Your task to perform on an android device: install app "PlayWell" Image 0: 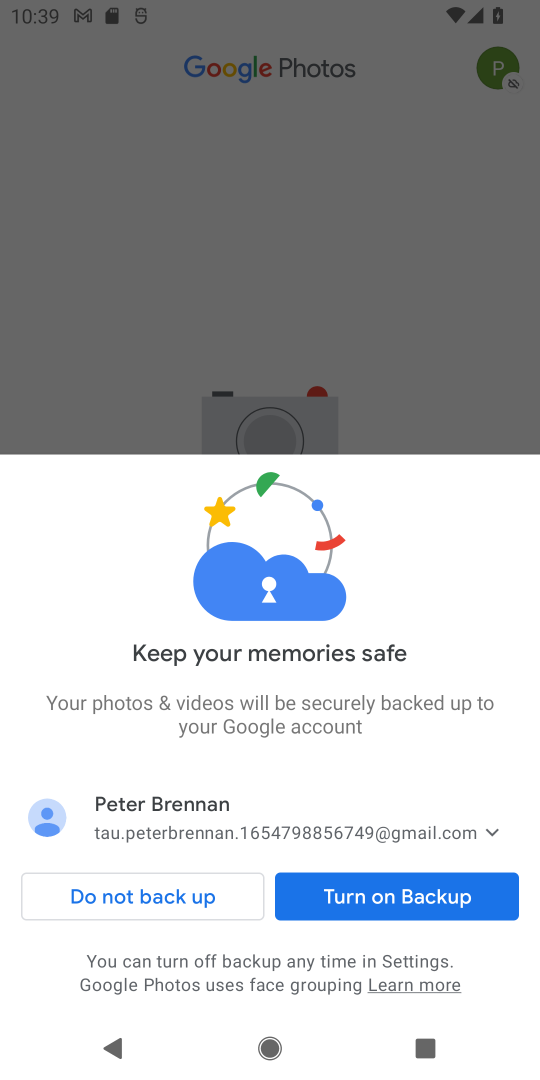
Step 0: press home button
Your task to perform on an android device: install app "PlayWell" Image 1: 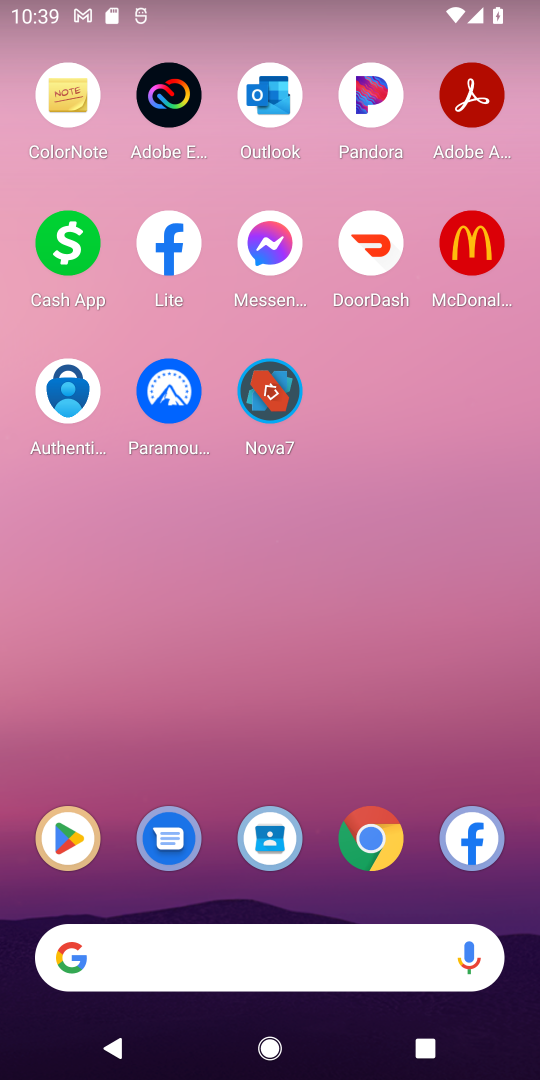
Step 1: click (71, 844)
Your task to perform on an android device: install app "PlayWell" Image 2: 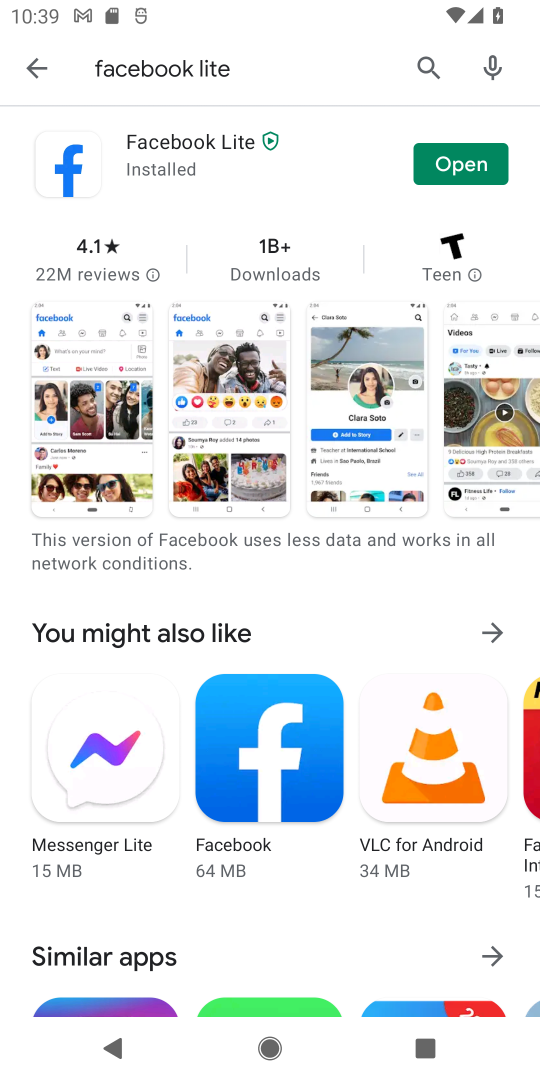
Step 2: click (271, 65)
Your task to perform on an android device: install app "PlayWell" Image 3: 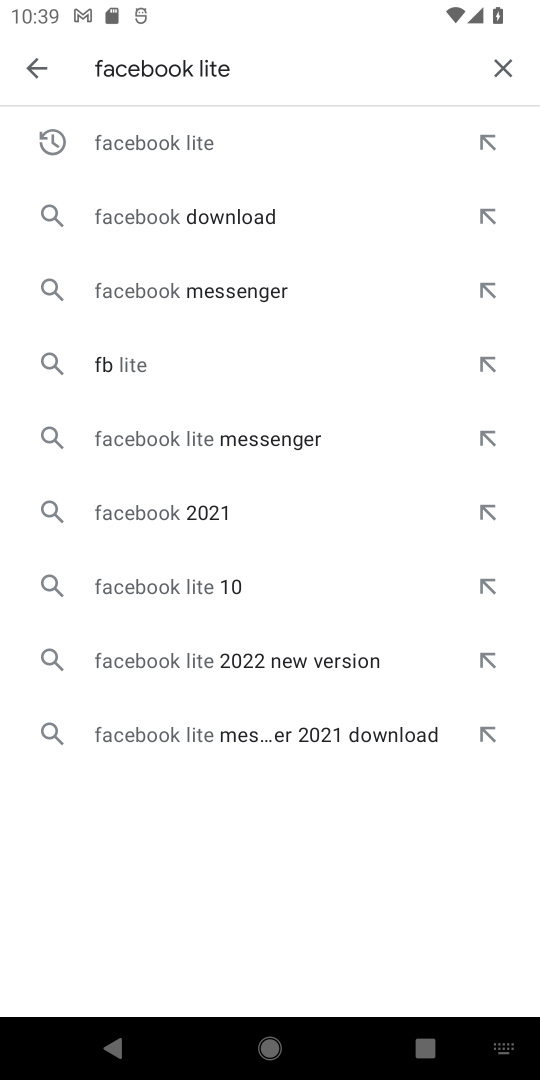
Step 3: click (506, 65)
Your task to perform on an android device: install app "PlayWell" Image 4: 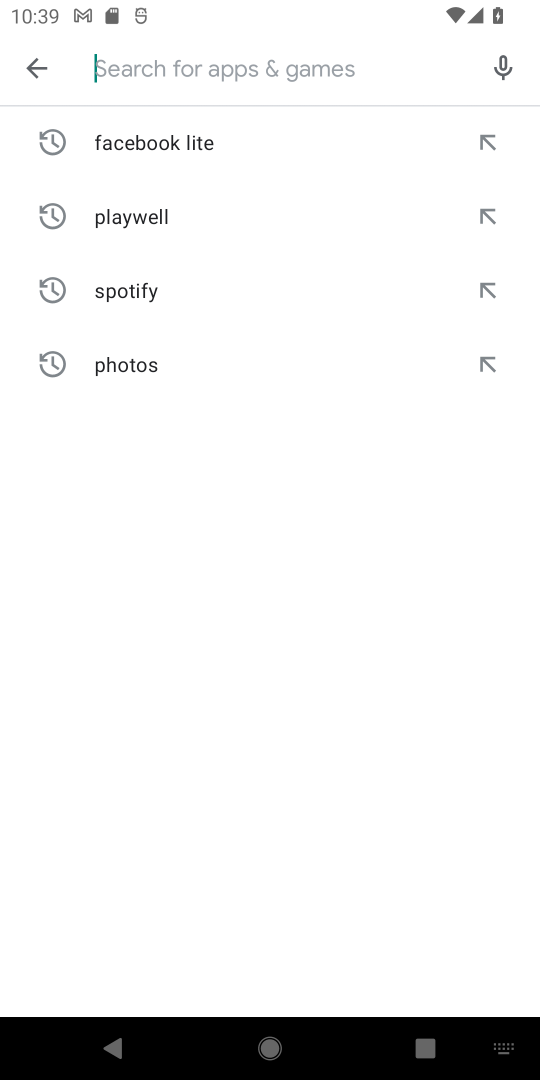
Step 4: type "playwell"
Your task to perform on an android device: install app "PlayWell" Image 5: 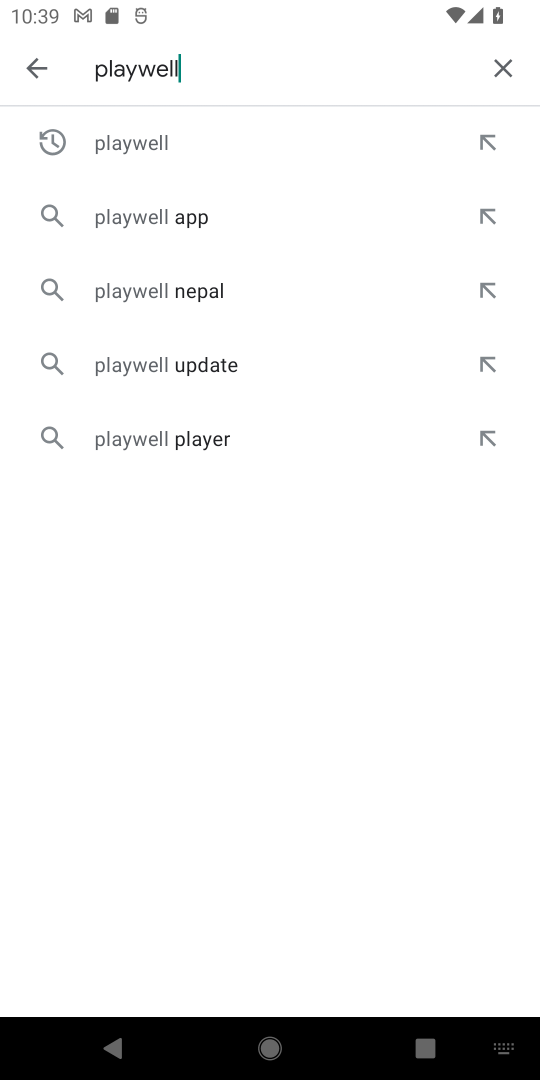
Step 5: click (154, 155)
Your task to perform on an android device: install app "PlayWell" Image 6: 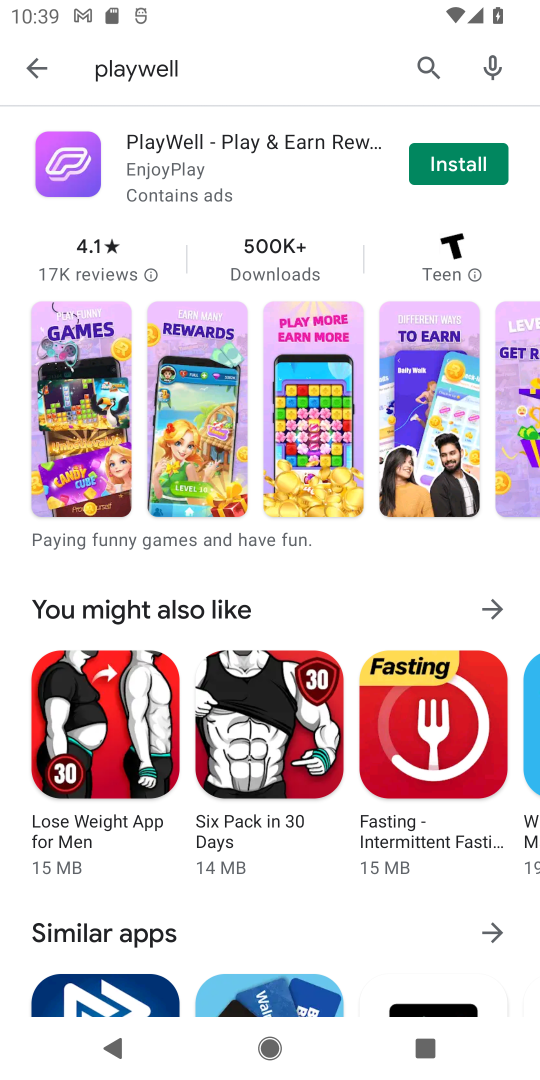
Step 6: click (442, 171)
Your task to perform on an android device: install app "PlayWell" Image 7: 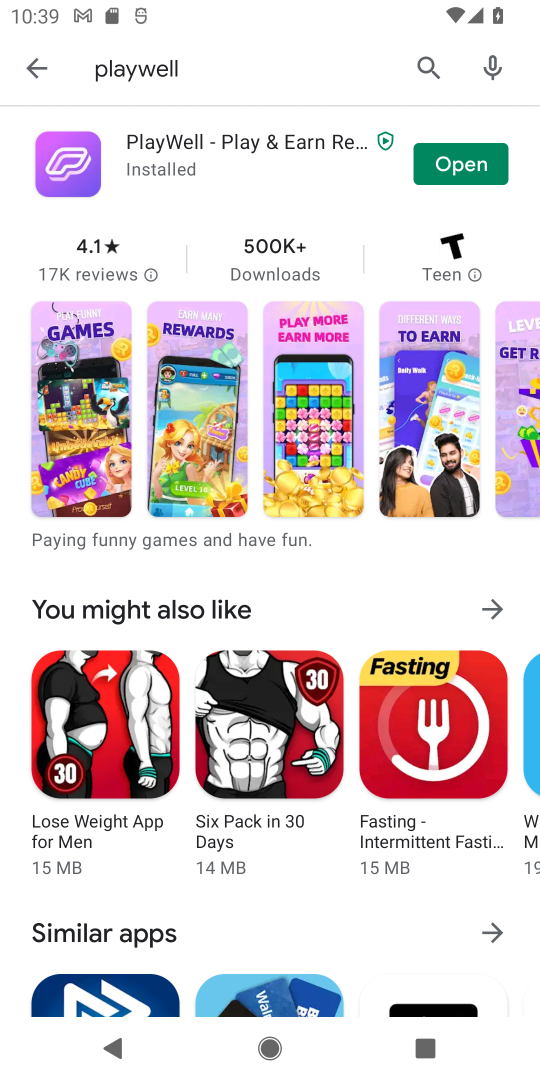
Step 7: task complete